Your task to perform on an android device: turn notification dots on Image 0: 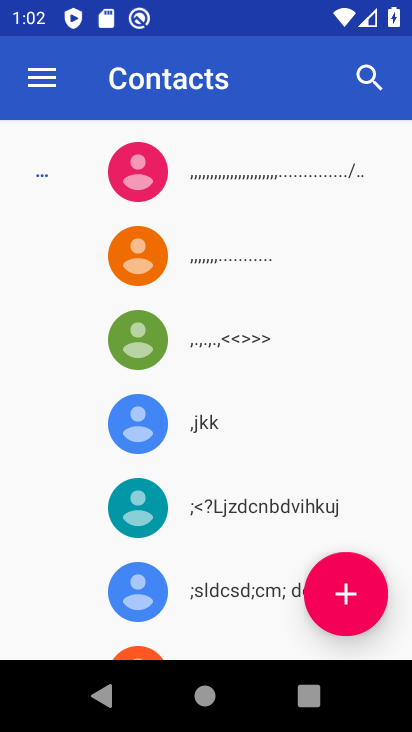
Step 0: press home button
Your task to perform on an android device: turn notification dots on Image 1: 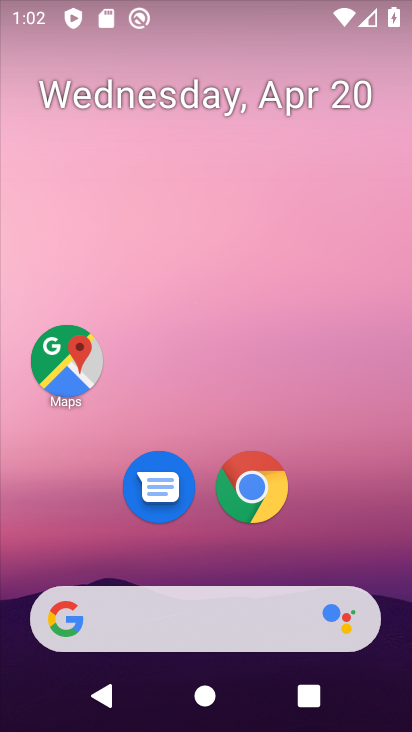
Step 1: drag from (354, 542) to (261, 72)
Your task to perform on an android device: turn notification dots on Image 2: 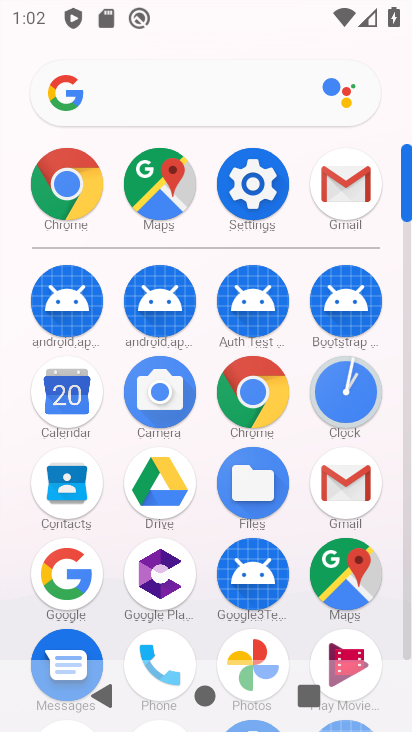
Step 2: click (254, 195)
Your task to perform on an android device: turn notification dots on Image 3: 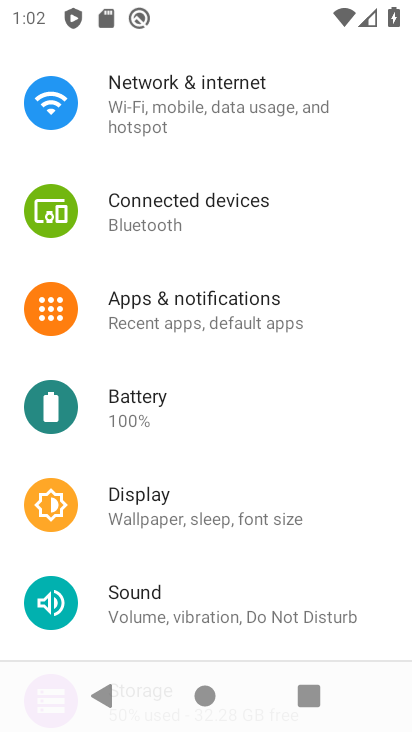
Step 3: click (234, 314)
Your task to perform on an android device: turn notification dots on Image 4: 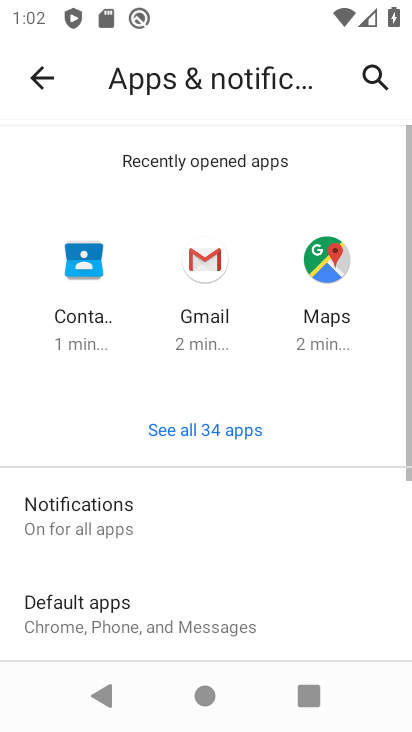
Step 4: click (187, 510)
Your task to perform on an android device: turn notification dots on Image 5: 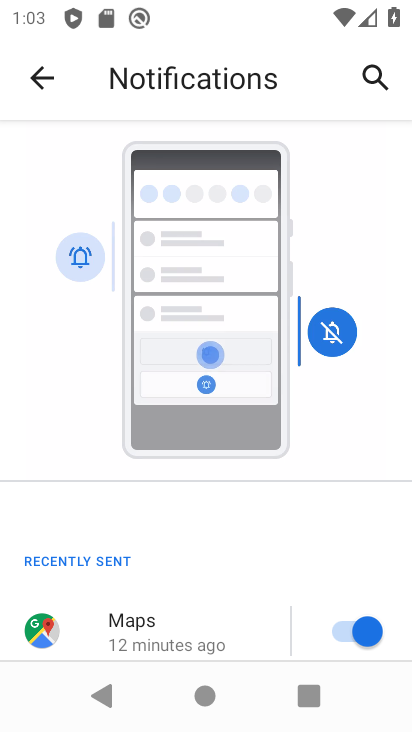
Step 5: drag from (185, 612) to (220, 79)
Your task to perform on an android device: turn notification dots on Image 6: 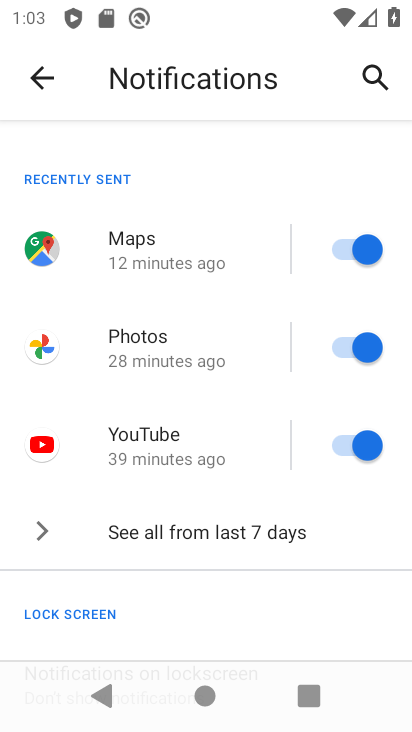
Step 6: drag from (208, 584) to (244, 144)
Your task to perform on an android device: turn notification dots on Image 7: 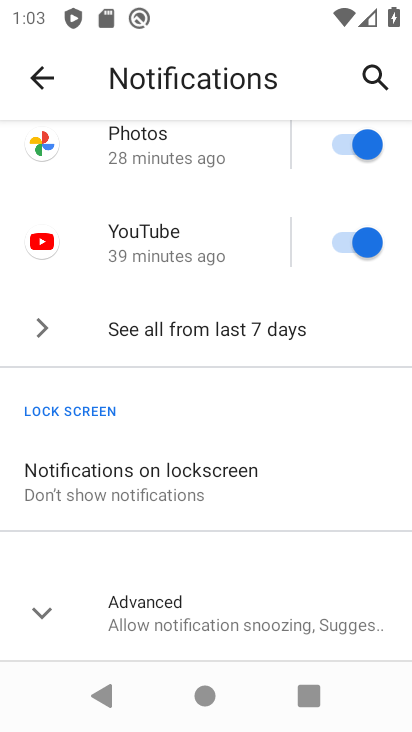
Step 7: click (139, 606)
Your task to perform on an android device: turn notification dots on Image 8: 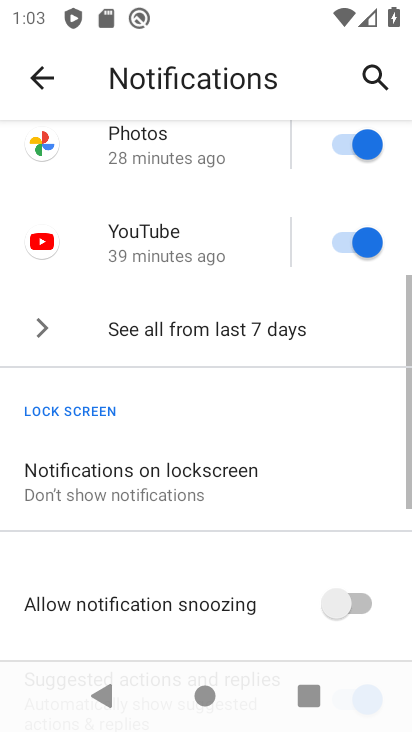
Step 8: drag from (139, 606) to (230, 121)
Your task to perform on an android device: turn notification dots on Image 9: 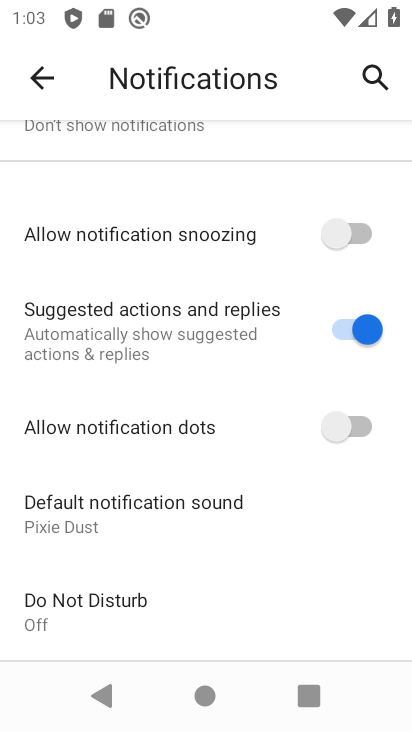
Step 9: click (297, 430)
Your task to perform on an android device: turn notification dots on Image 10: 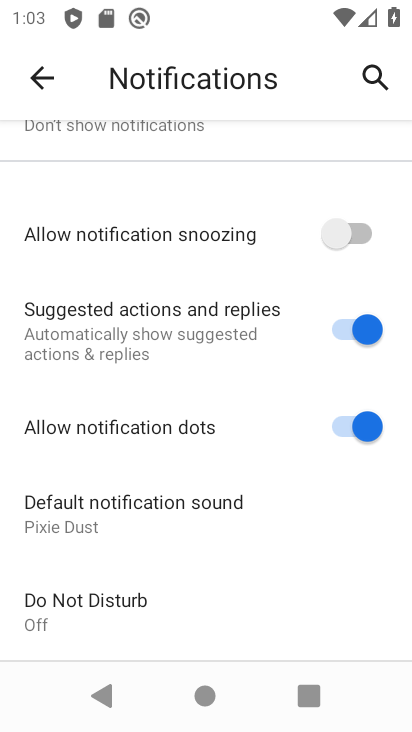
Step 10: task complete